Your task to perform on an android device: turn on data saver in the chrome app Image 0: 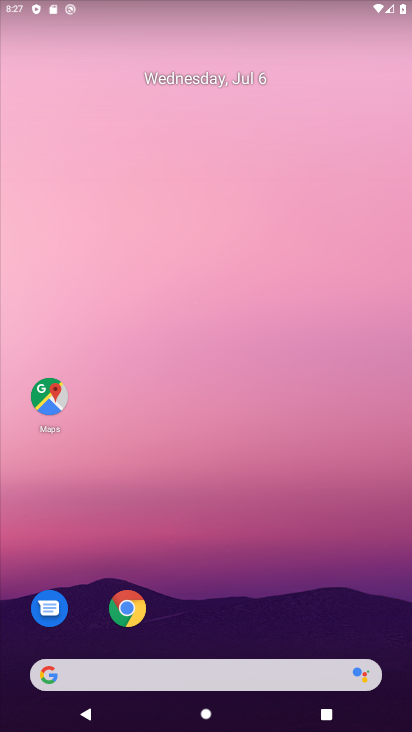
Step 0: drag from (241, 582) to (330, 92)
Your task to perform on an android device: turn on data saver in the chrome app Image 1: 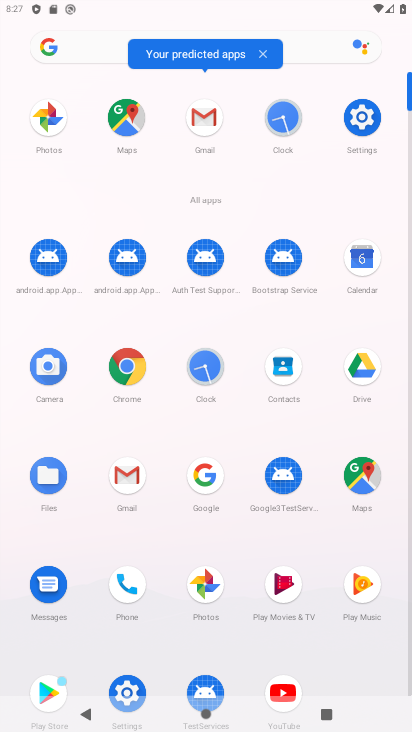
Step 1: click (130, 365)
Your task to perform on an android device: turn on data saver in the chrome app Image 2: 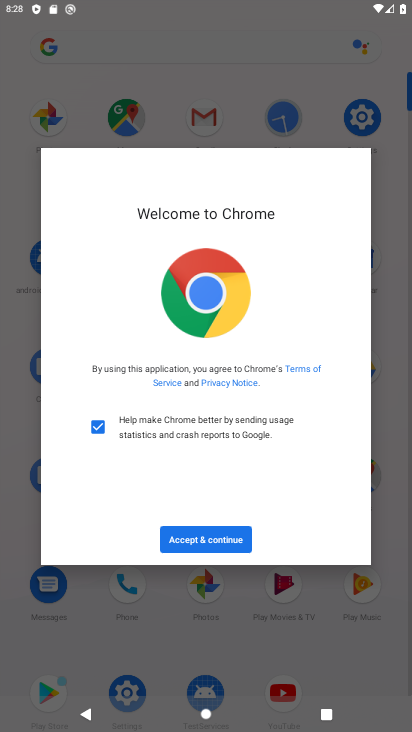
Step 2: click (212, 544)
Your task to perform on an android device: turn on data saver in the chrome app Image 3: 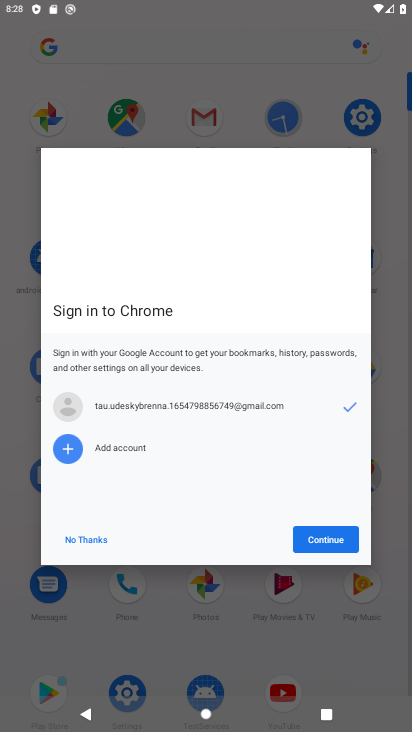
Step 3: click (287, 531)
Your task to perform on an android device: turn on data saver in the chrome app Image 4: 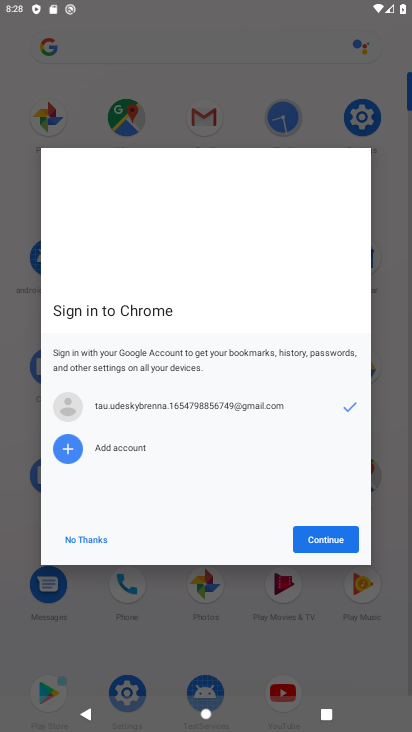
Step 4: click (333, 536)
Your task to perform on an android device: turn on data saver in the chrome app Image 5: 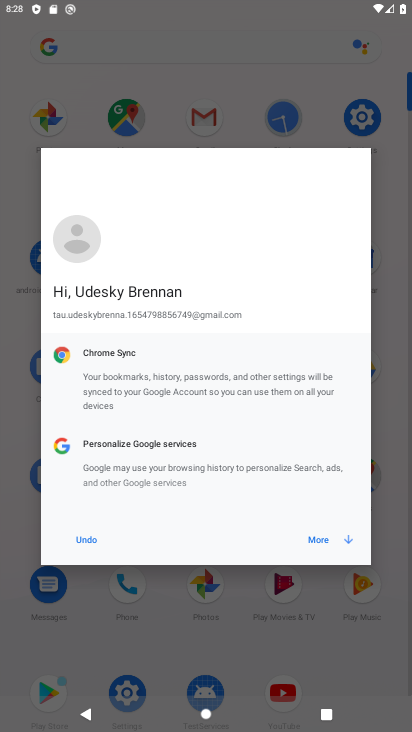
Step 5: click (336, 543)
Your task to perform on an android device: turn on data saver in the chrome app Image 6: 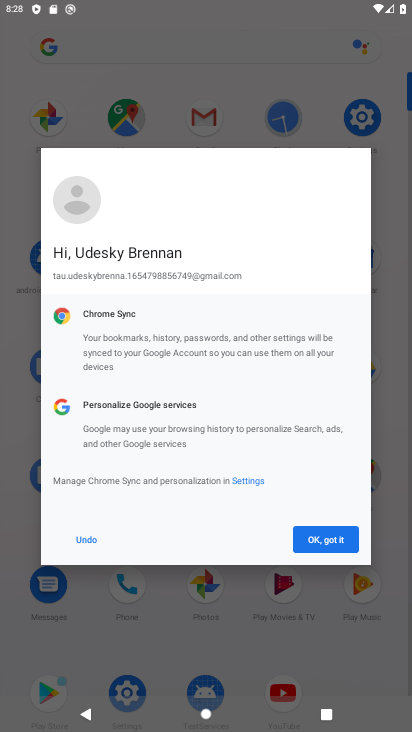
Step 6: click (338, 531)
Your task to perform on an android device: turn on data saver in the chrome app Image 7: 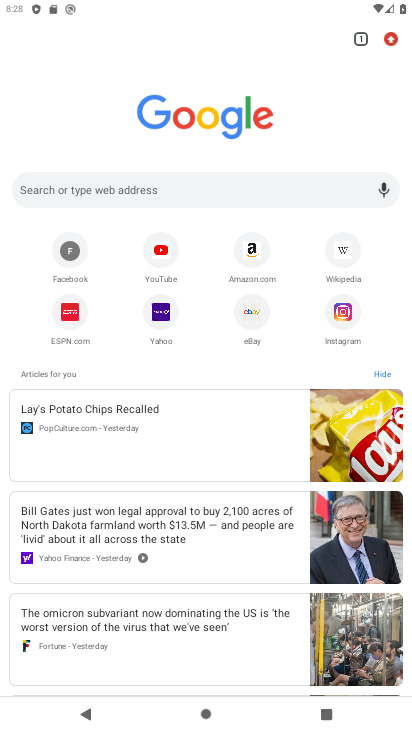
Step 7: drag from (387, 38) to (289, 355)
Your task to perform on an android device: turn on data saver in the chrome app Image 8: 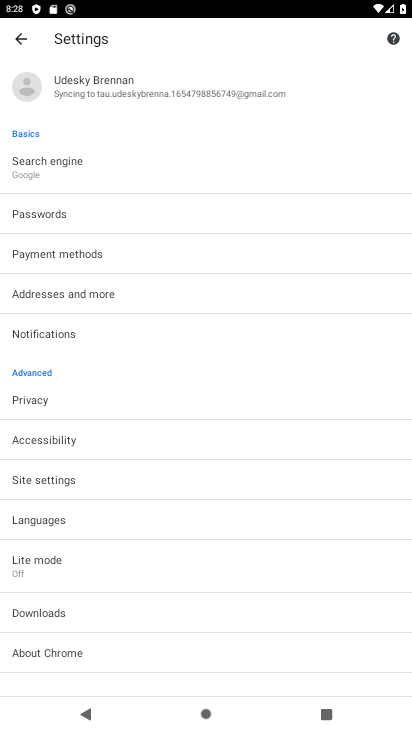
Step 8: click (121, 574)
Your task to perform on an android device: turn on data saver in the chrome app Image 9: 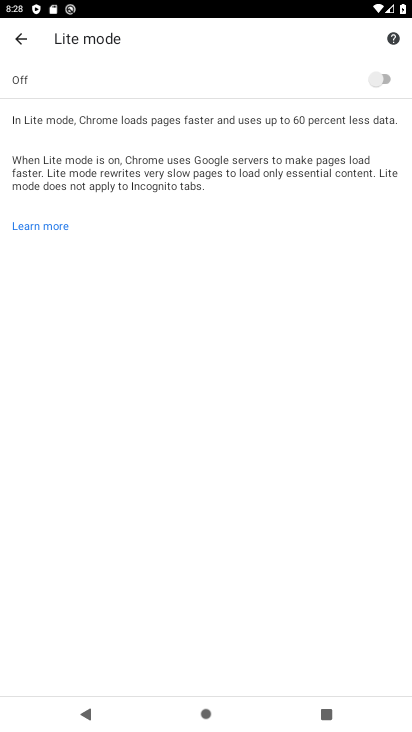
Step 9: click (399, 79)
Your task to perform on an android device: turn on data saver in the chrome app Image 10: 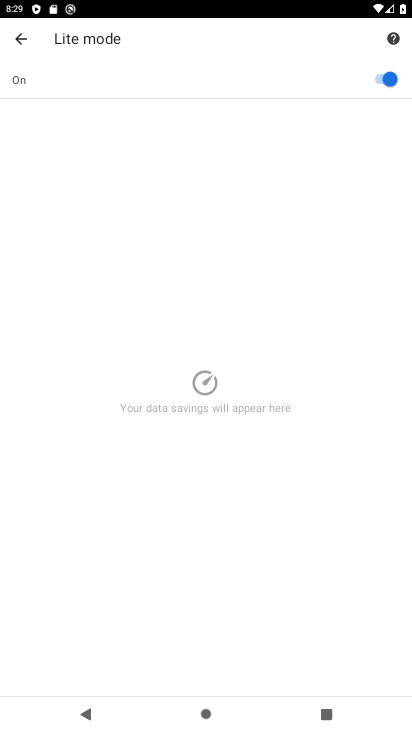
Step 10: task complete